Your task to perform on an android device: Open Google Chrome and click the shortcut for Amazon.com Image 0: 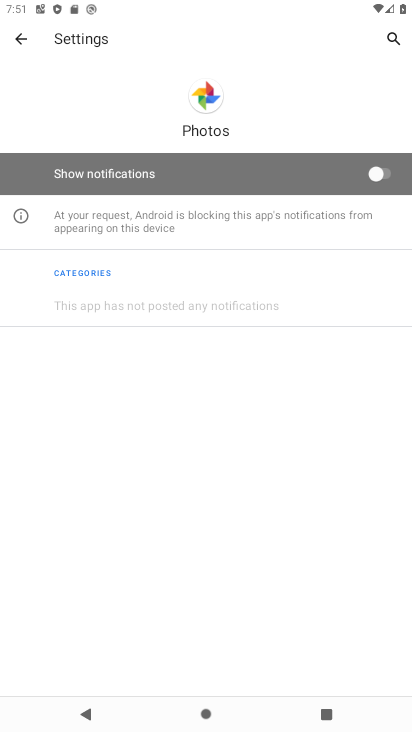
Step 0: press home button
Your task to perform on an android device: Open Google Chrome and click the shortcut for Amazon.com Image 1: 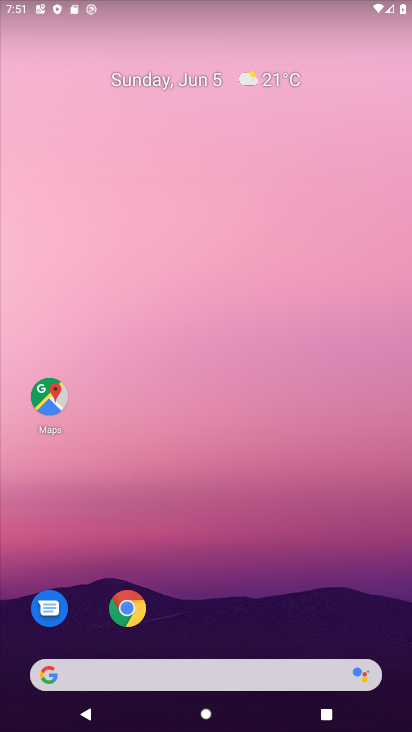
Step 1: drag from (371, 598) to (360, 138)
Your task to perform on an android device: Open Google Chrome and click the shortcut for Amazon.com Image 2: 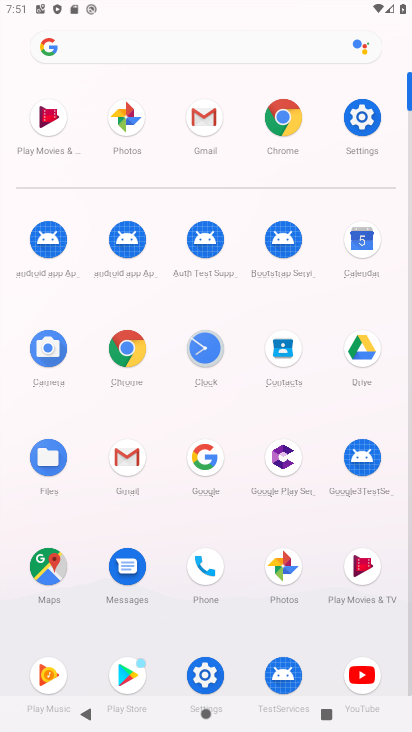
Step 2: click (118, 353)
Your task to perform on an android device: Open Google Chrome and click the shortcut for Amazon.com Image 3: 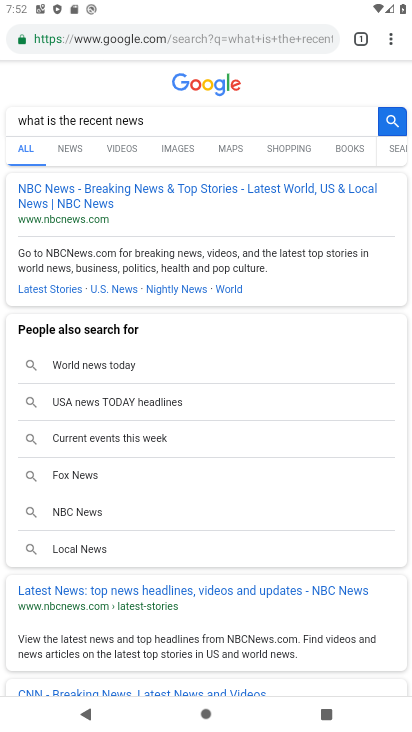
Step 3: click (362, 32)
Your task to perform on an android device: Open Google Chrome and click the shortcut for Amazon.com Image 4: 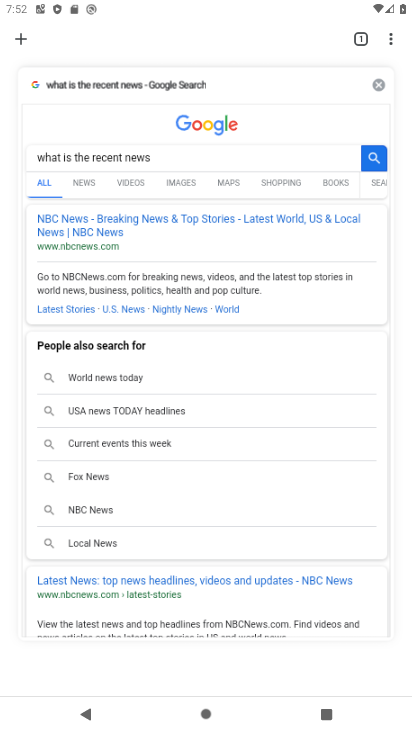
Step 4: click (18, 34)
Your task to perform on an android device: Open Google Chrome and click the shortcut for Amazon.com Image 5: 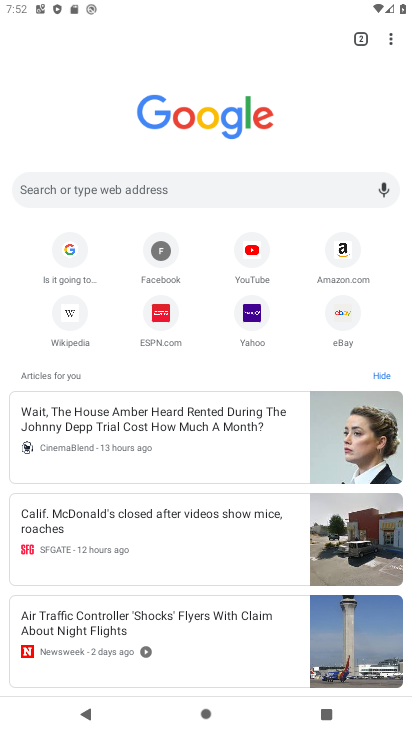
Step 5: click (356, 269)
Your task to perform on an android device: Open Google Chrome and click the shortcut for Amazon.com Image 6: 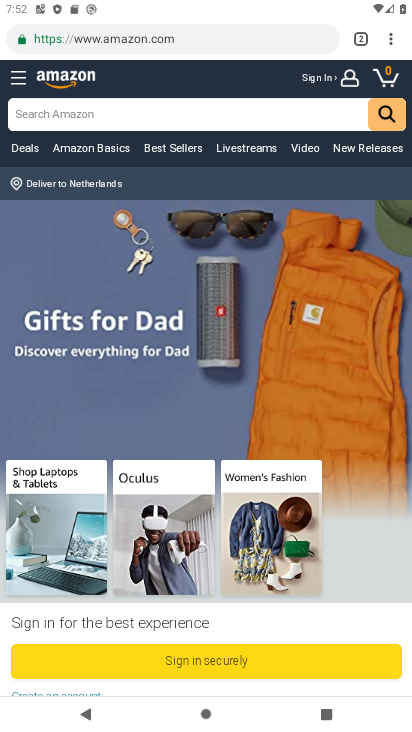
Step 6: task complete